Your task to perform on an android device: Find coffee shops on Maps Image 0: 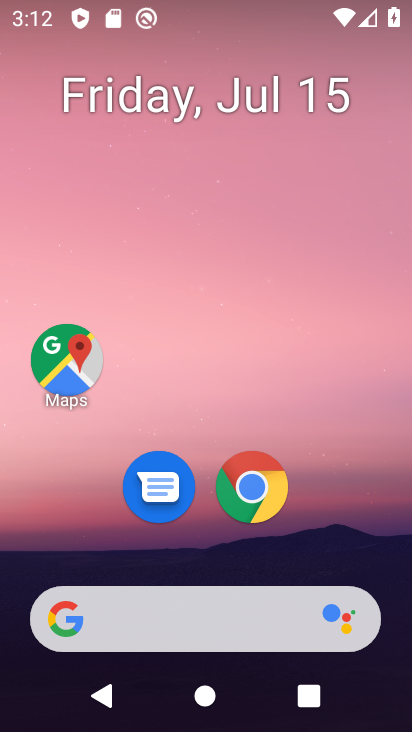
Step 0: drag from (187, 609) to (246, 121)
Your task to perform on an android device: Find coffee shops on Maps Image 1: 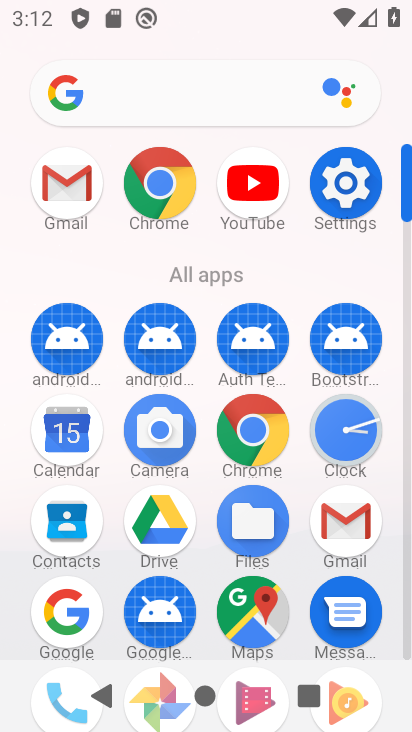
Step 1: click (255, 626)
Your task to perform on an android device: Find coffee shops on Maps Image 2: 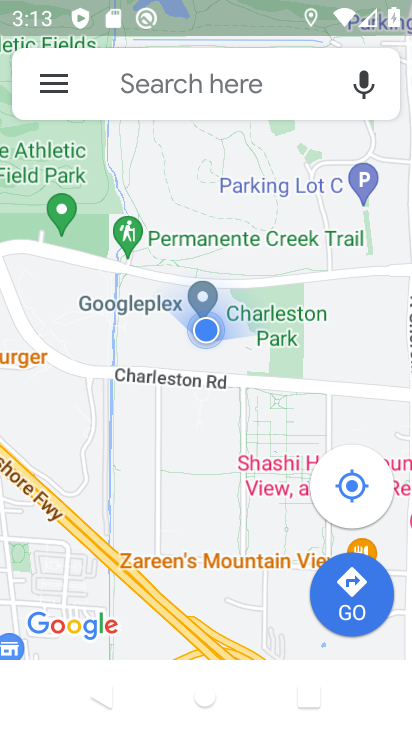
Step 2: click (197, 102)
Your task to perform on an android device: Find coffee shops on Maps Image 3: 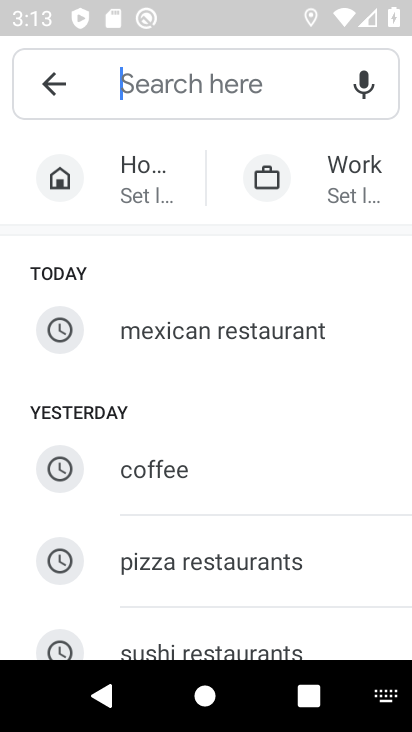
Step 3: drag from (203, 559) to (261, 212)
Your task to perform on an android device: Find coffee shops on Maps Image 4: 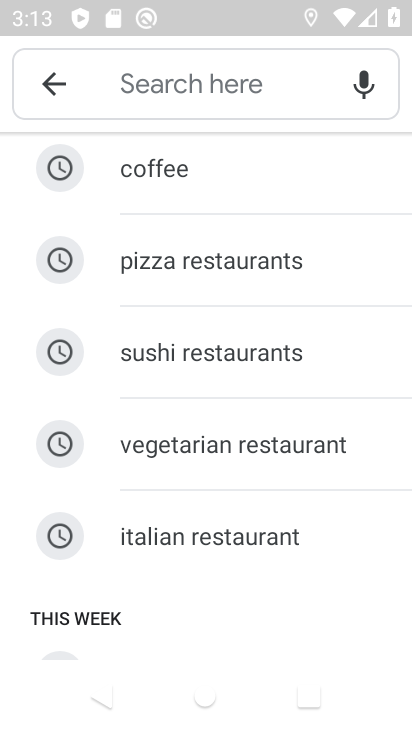
Step 4: drag from (233, 573) to (259, 712)
Your task to perform on an android device: Find coffee shops on Maps Image 5: 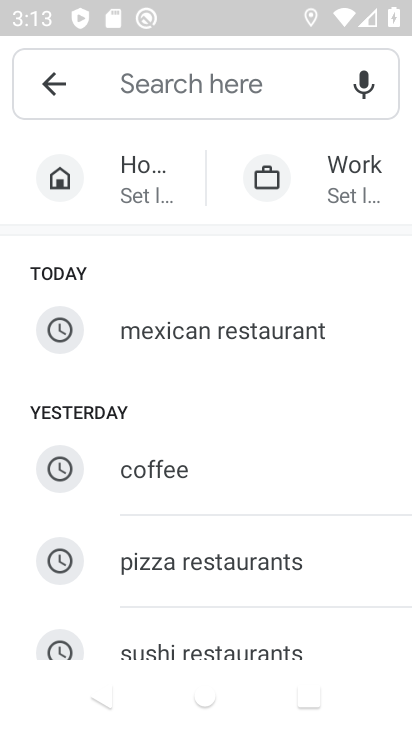
Step 5: click (185, 95)
Your task to perform on an android device: Find coffee shops on Maps Image 6: 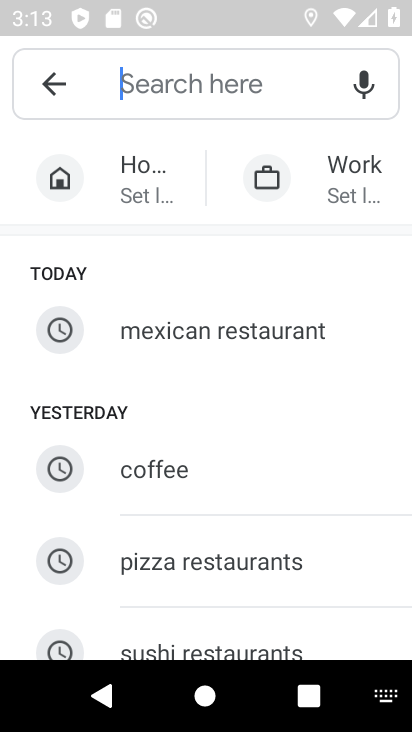
Step 6: type "coffee shops"
Your task to perform on an android device: Find coffee shops on Maps Image 7: 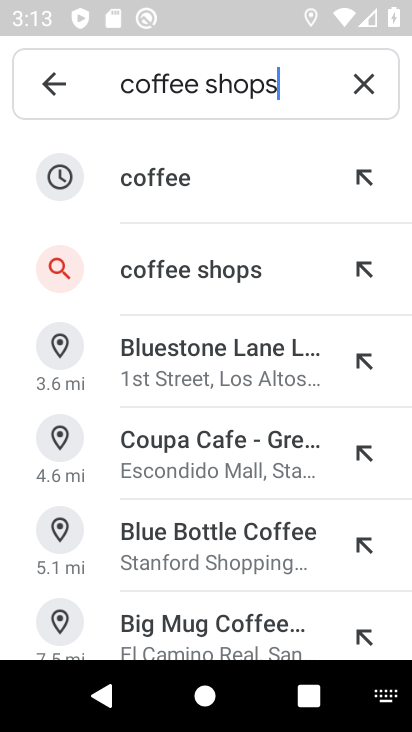
Step 7: click (177, 270)
Your task to perform on an android device: Find coffee shops on Maps Image 8: 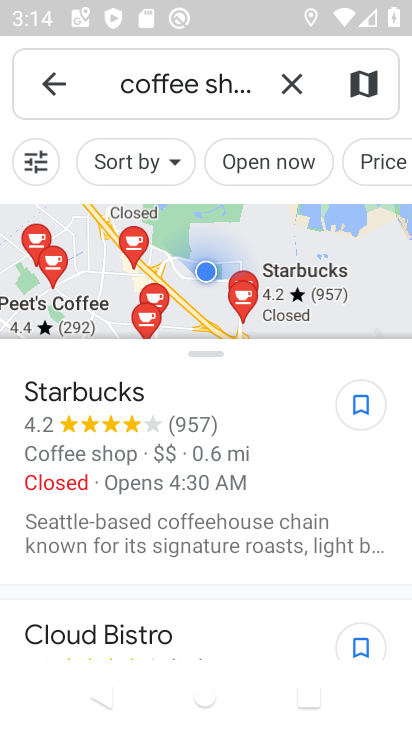
Step 8: task complete